Your task to perform on an android device: find photos in the google photos app Image 0: 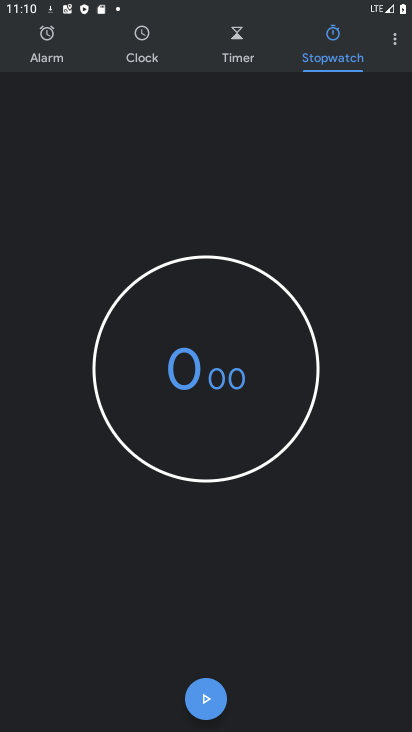
Step 0: press home button
Your task to perform on an android device: find photos in the google photos app Image 1: 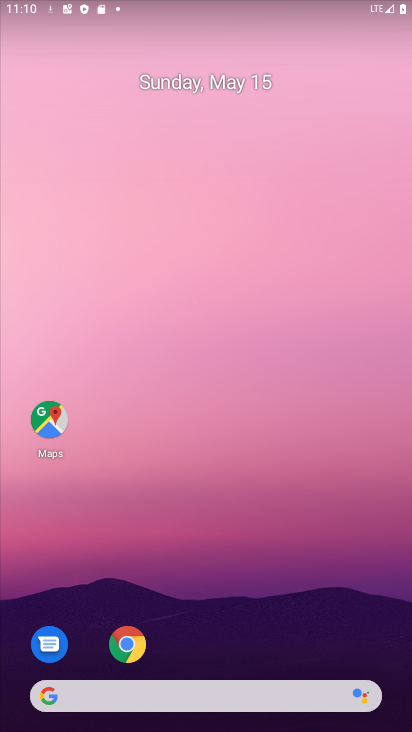
Step 1: drag from (288, 718) to (178, 299)
Your task to perform on an android device: find photos in the google photos app Image 2: 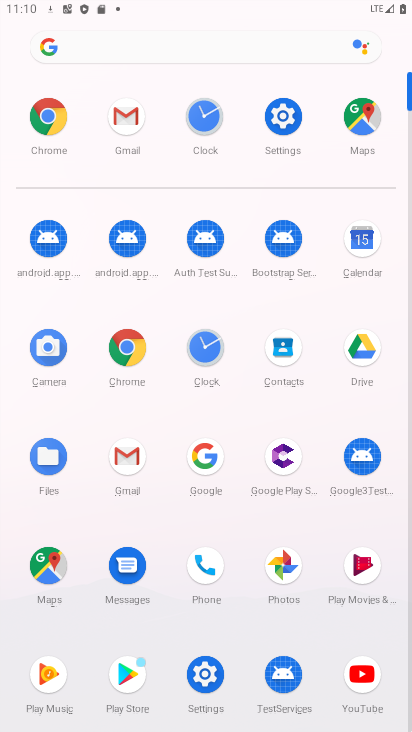
Step 2: click (277, 565)
Your task to perform on an android device: find photos in the google photos app Image 3: 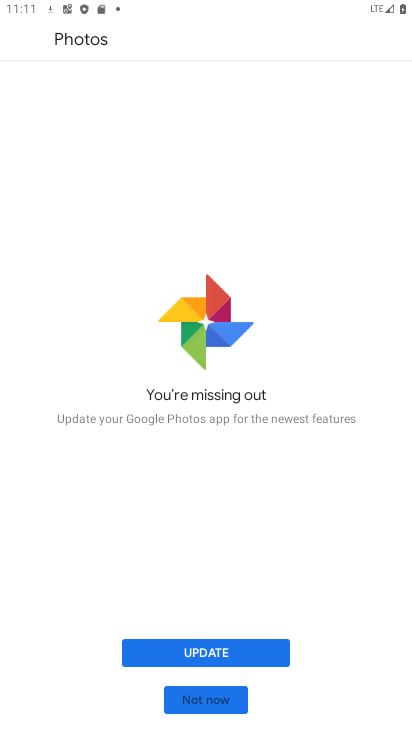
Step 3: click (193, 654)
Your task to perform on an android device: find photos in the google photos app Image 4: 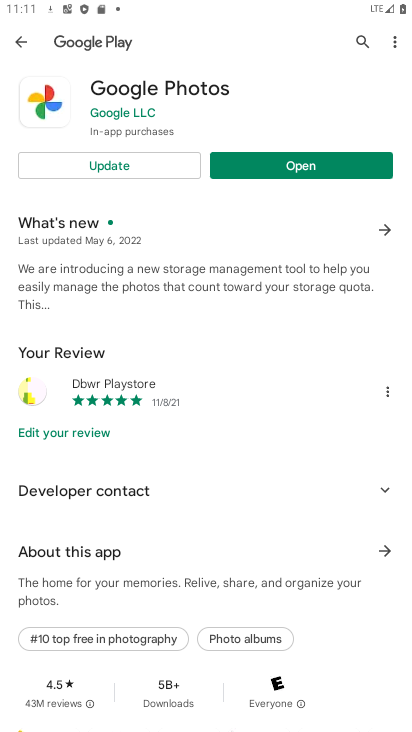
Step 4: click (329, 169)
Your task to perform on an android device: find photos in the google photos app Image 5: 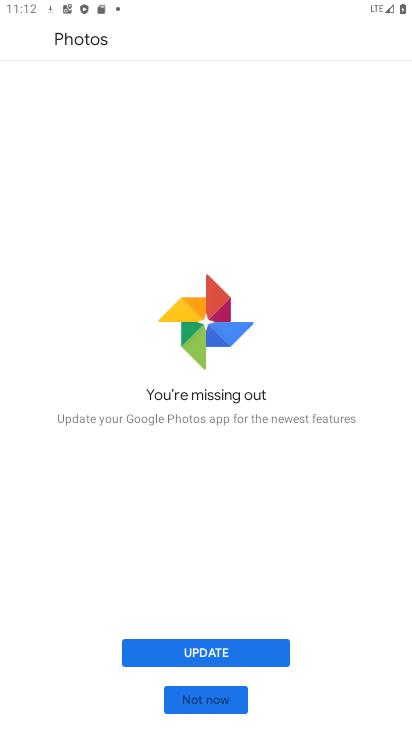
Step 5: click (169, 654)
Your task to perform on an android device: find photos in the google photos app Image 6: 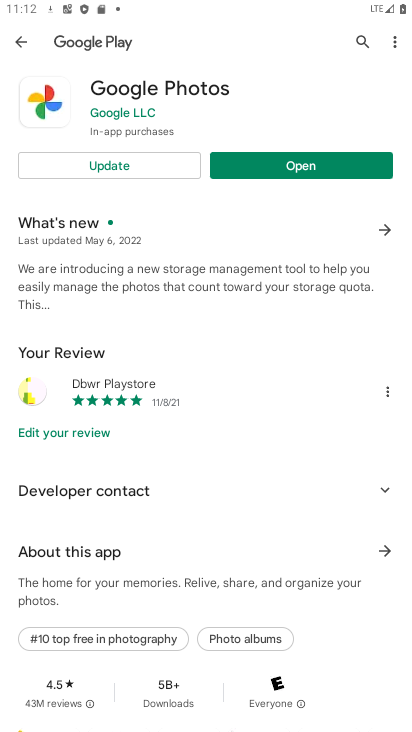
Step 6: click (294, 166)
Your task to perform on an android device: find photos in the google photos app Image 7: 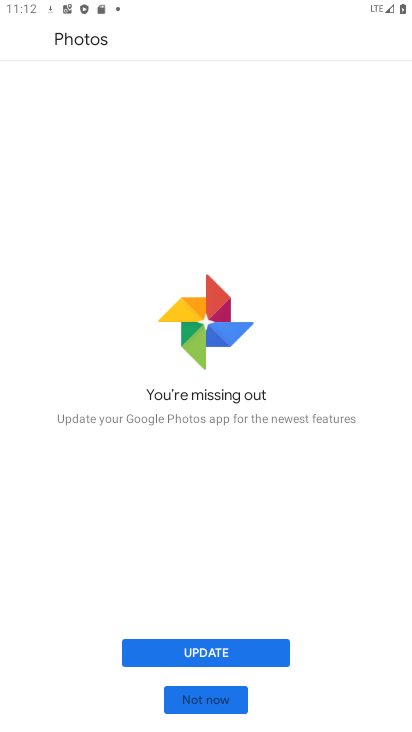
Step 7: click (224, 650)
Your task to perform on an android device: find photos in the google photos app Image 8: 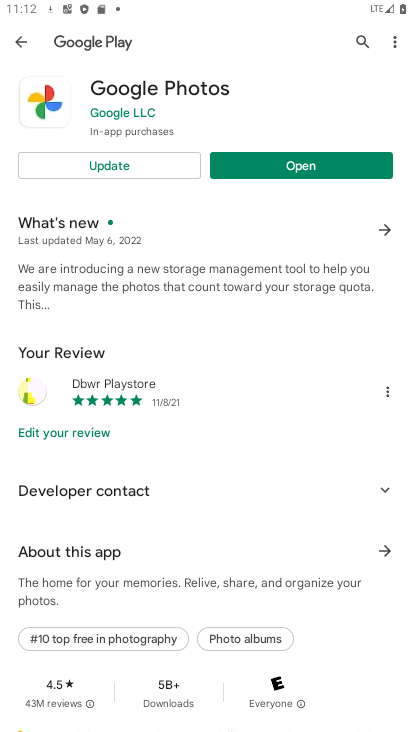
Step 8: click (110, 163)
Your task to perform on an android device: find photos in the google photos app Image 9: 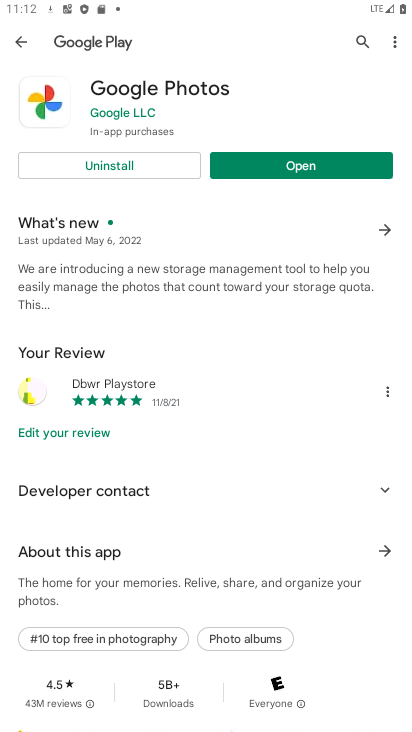
Step 9: click (285, 162)
Your task to perform on an android device: find photos in the google photos app Image 10: 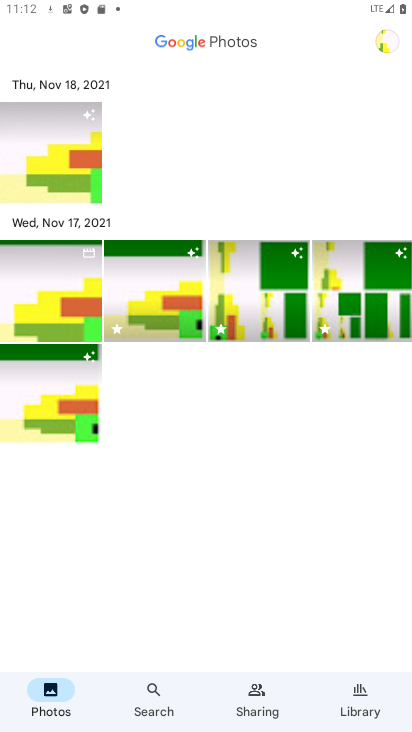
Step 10: task complete